Your task to perform on an android device: choose inbox layout in the gmail app Image 0: 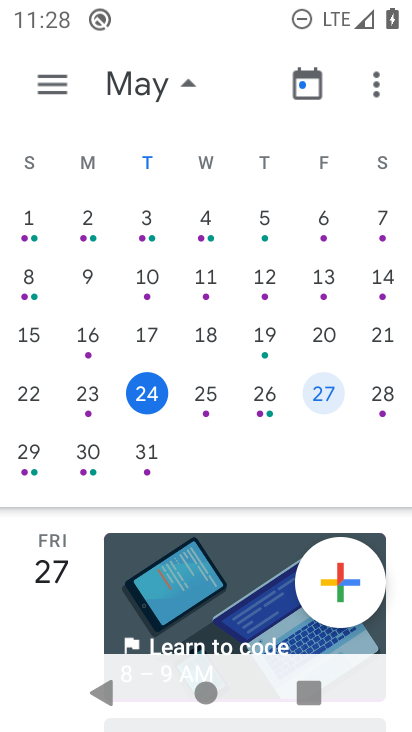
Step 0: press home button
Your task to perform on an android device: choose inbox layout in the gmail app Image 1: 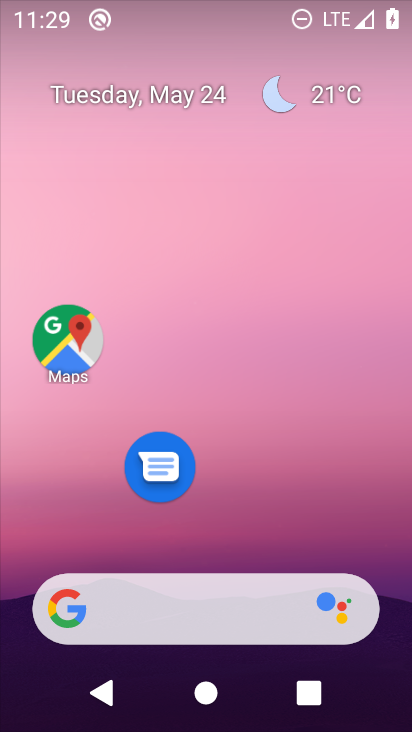
Step 1: drag from (242, 563) to (305, 167)
Your task to perform on an android device: choose inbox layout in the gmail app Image 2: 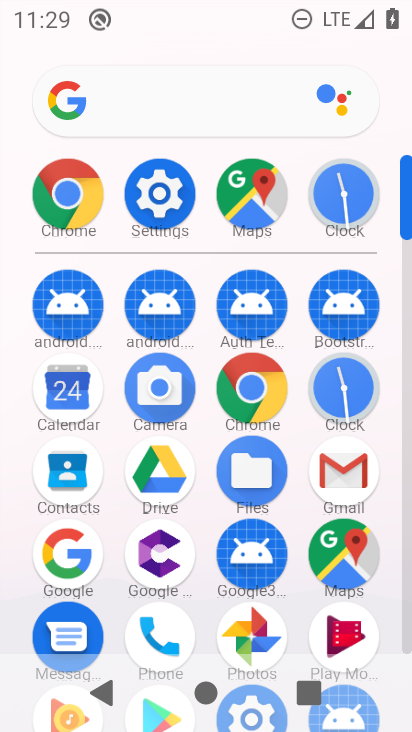
Step 2: click (350, 468)
Your task to perform on an android device: choose inbox layout in the gmail app Image 3: 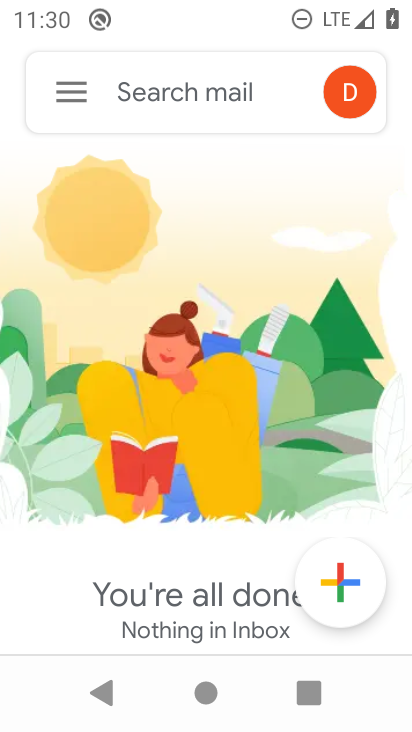
Step 3: click (92, 97)
Your task to perform on an android device: choose inbox layout in the gmail app Image 4: 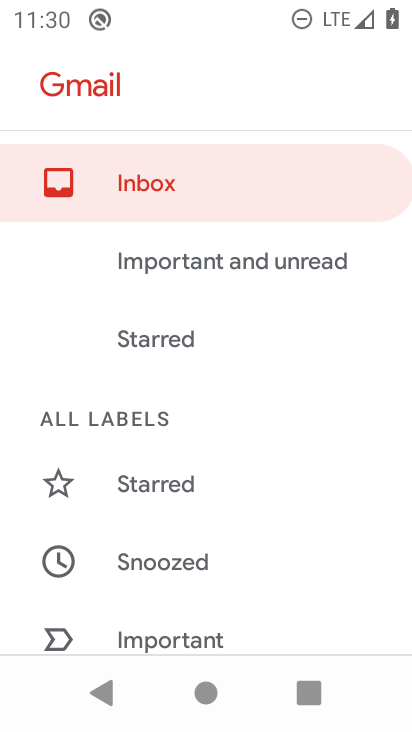
Step 4: click (185, 197)
Your task to perform on an android device: choose inbox layout in the gmail app Image 5: 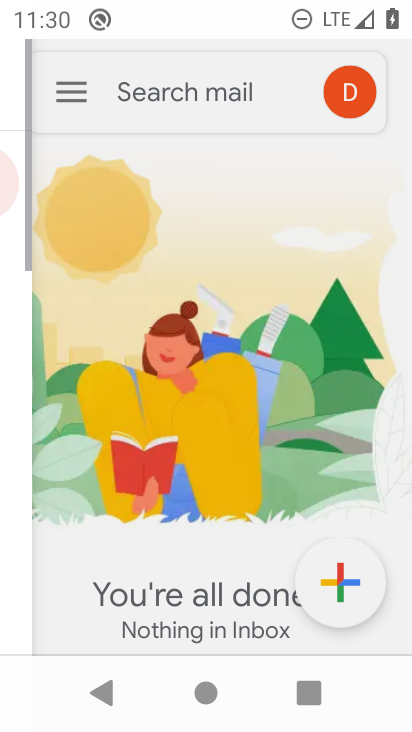
Step 5: task complete